Your task to perform on an android device: Open Amazon Image 0: 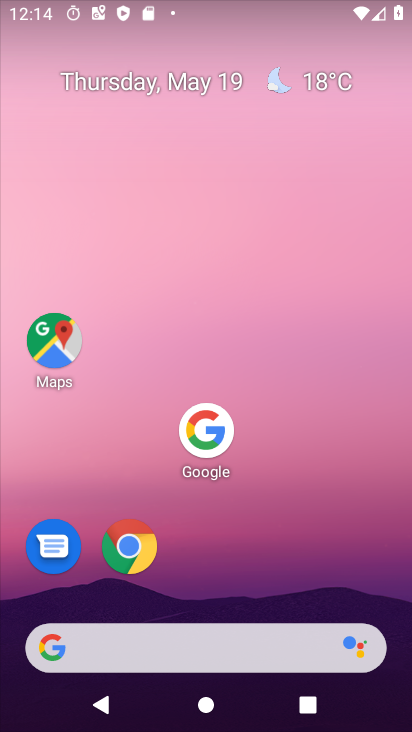
Step 0: click (135, 548)
Your task to perform on an android device: Open Amazon Image 1: 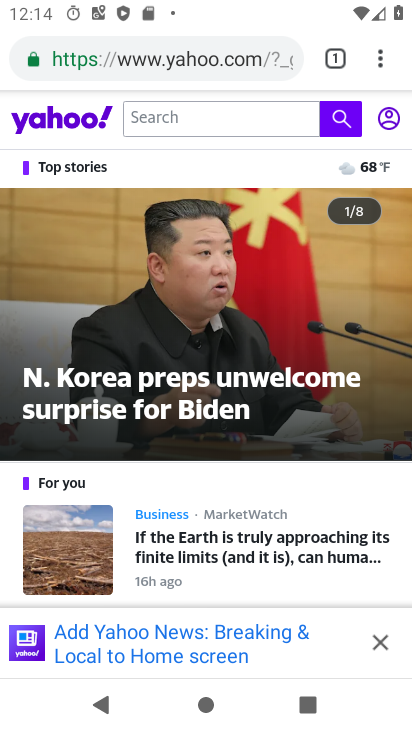
Step 1: press back button
Your task to perform on an android device: Open Amazon Image 2: 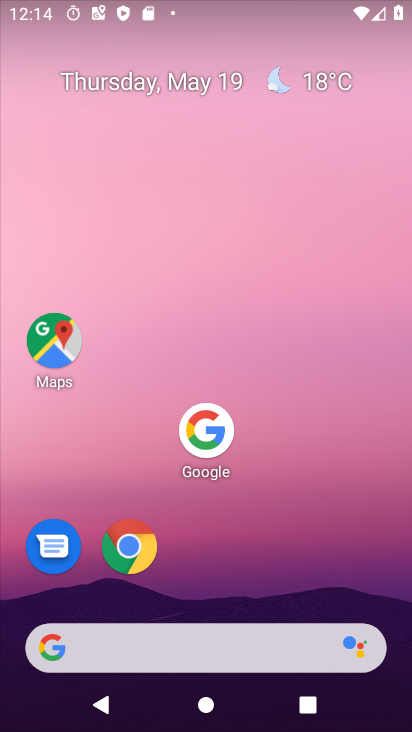
Step 2: click (126, 538)
Your task to perform on an android device: Open Amazon Image 3: 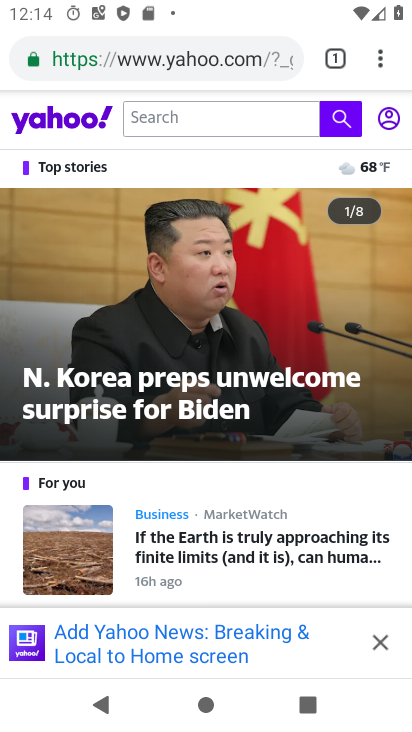
Step 3: click (246, 60)
Your task to perform on an android device: Open Amazon Image 4: 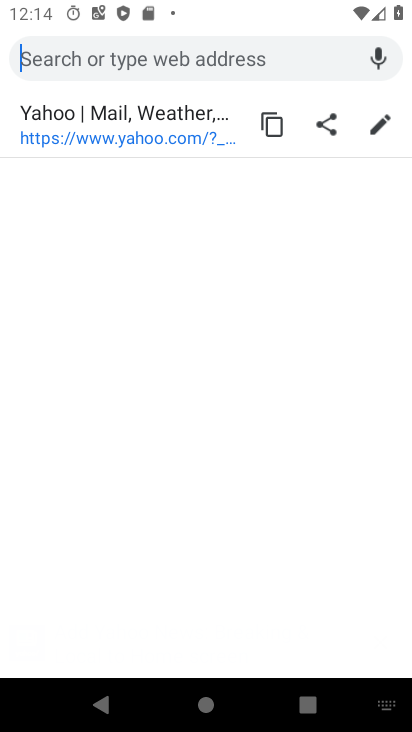
Step 4: type "amazon"
Your task to perform on an android device: Open Amazon Image 5: 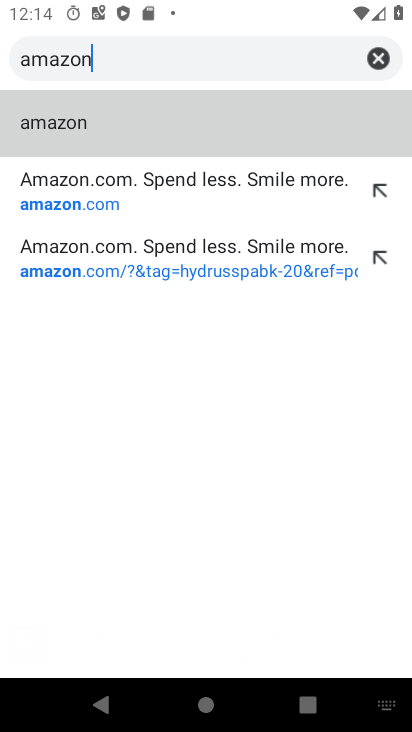
Step 5: click (129, 128)
Your task to perform on an android device: Open Amazon Image 6: 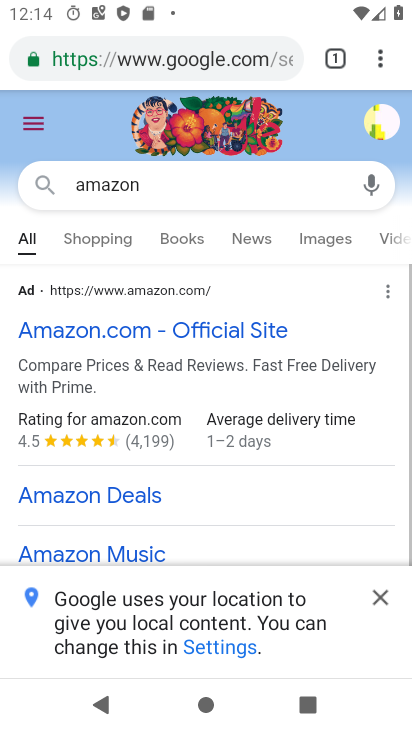
Step 6: click (207, 318)
Your task to perform on an android device: Open Amazon Image 7: 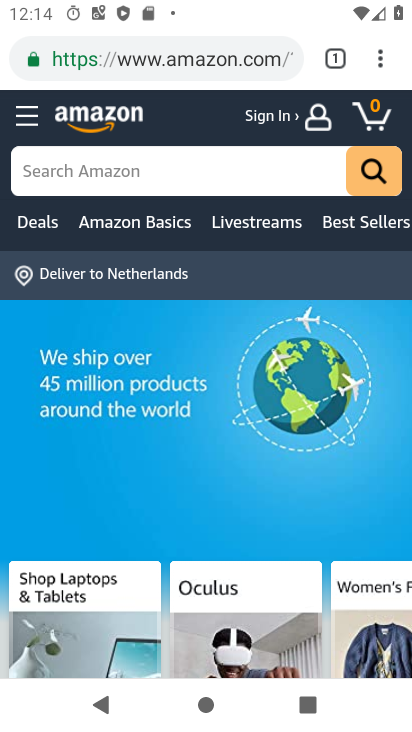
Step 7: task complete